Your task to perform on an android device: Toggle the flashlight Image 0: 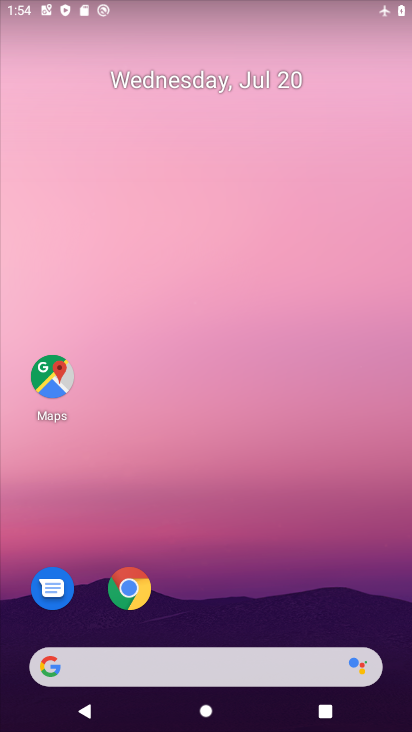
Step 0: drag from (214, 583) to (393, 0)
Your task to perform on an android device: Toggle the flashlight Image 1: 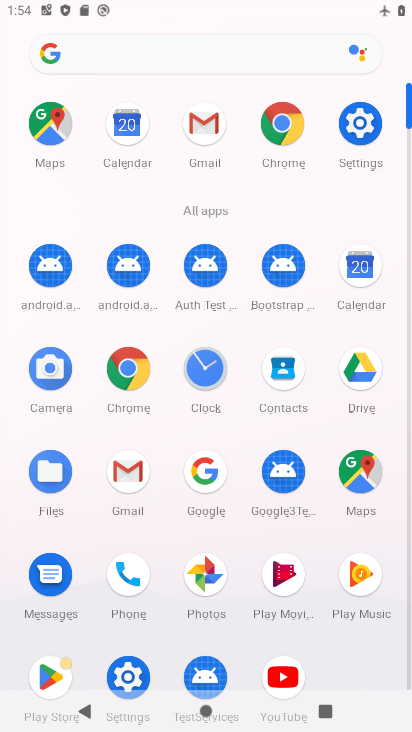
Step 1: click (350, 128)
Your task to perform on an android device: Toggle the flashlight Image 2: 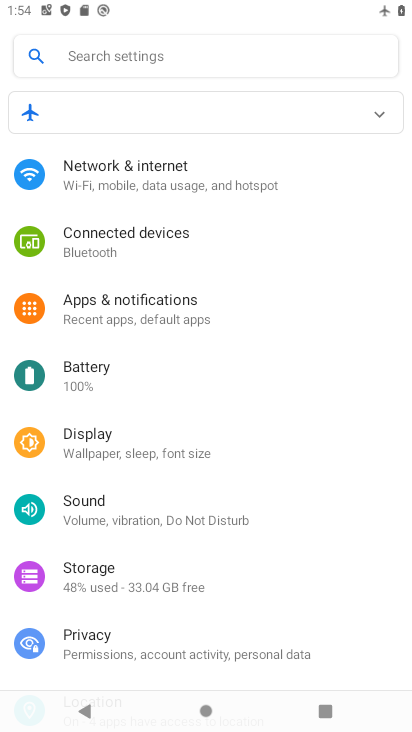
Step 2: task complete